Your task to perform on an android device: Open location settings Image 0: 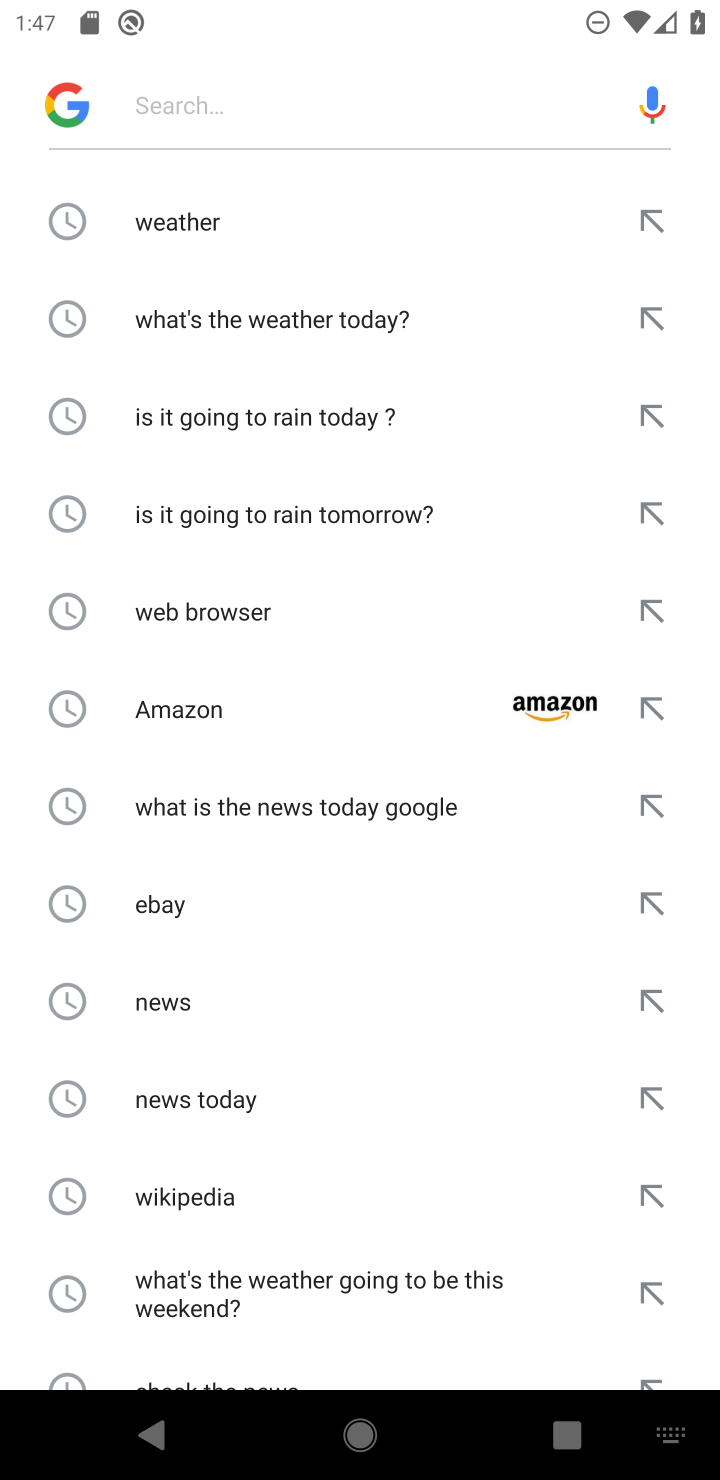
Step 0: press home button
Your task to perform on an android device: Open location settings Image 1: 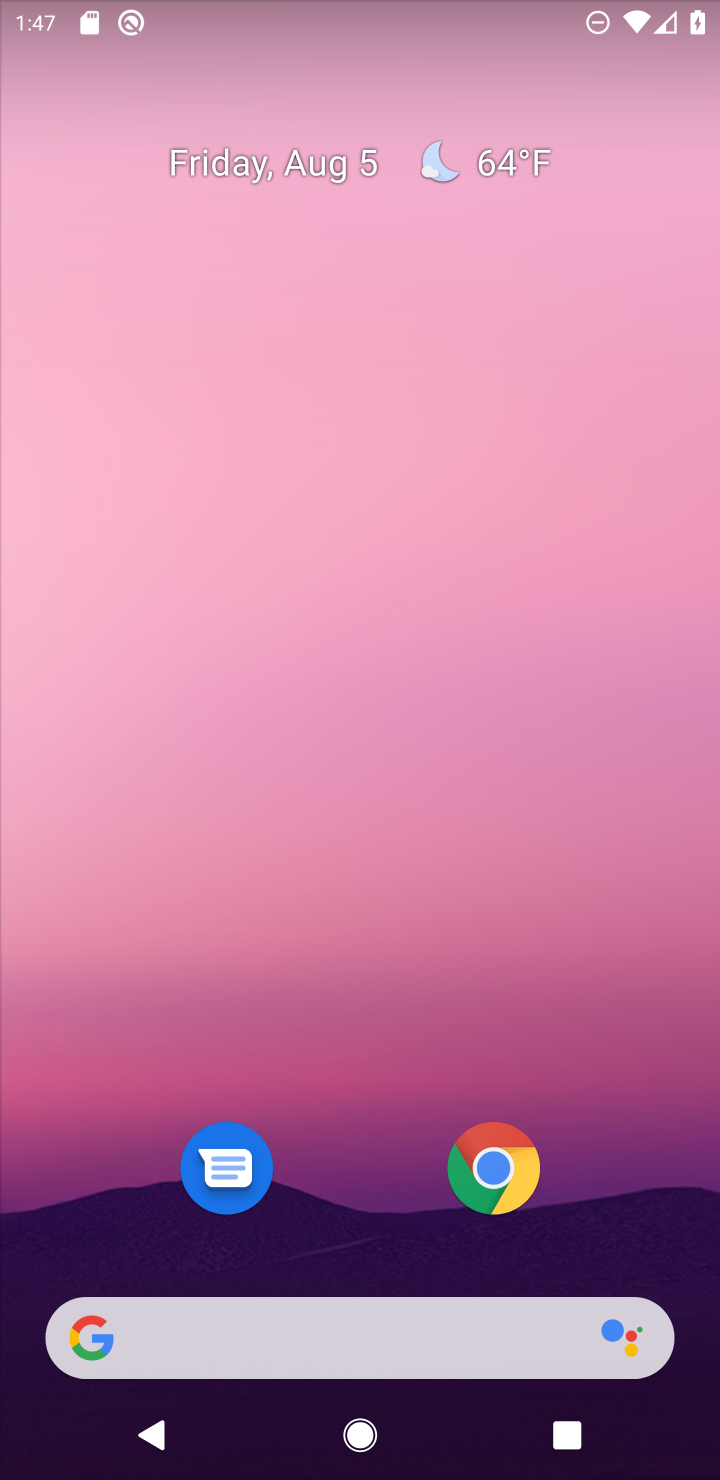
Step 1: drag from (669, 1226) to (25, 964)
Your task to perform on an android device: Open location settings Image 2: 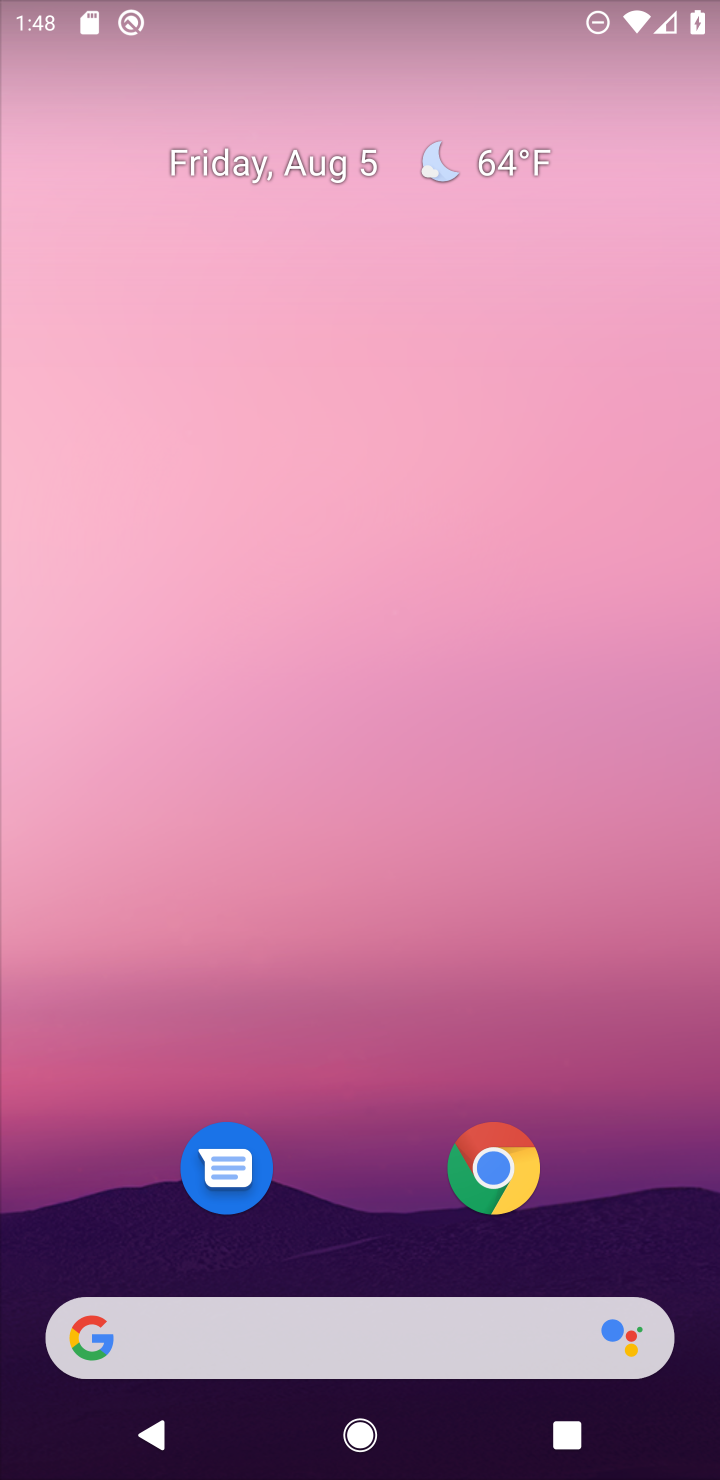
Step 2: click (375, 1339)
Your task to perform on an android device: Open location settings Image 3: 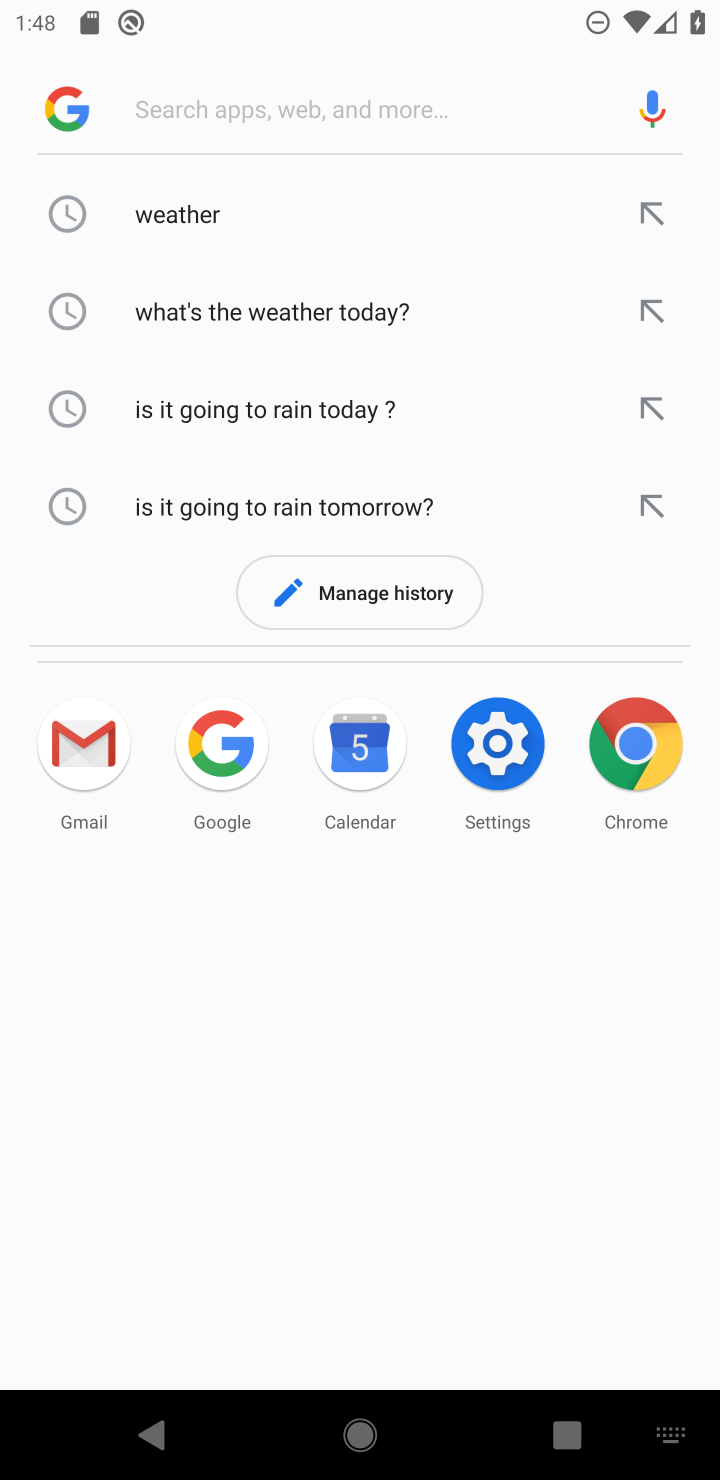
Step 3: click (530, 756)
Your task to perform on an android device: Open location settings Image 4: 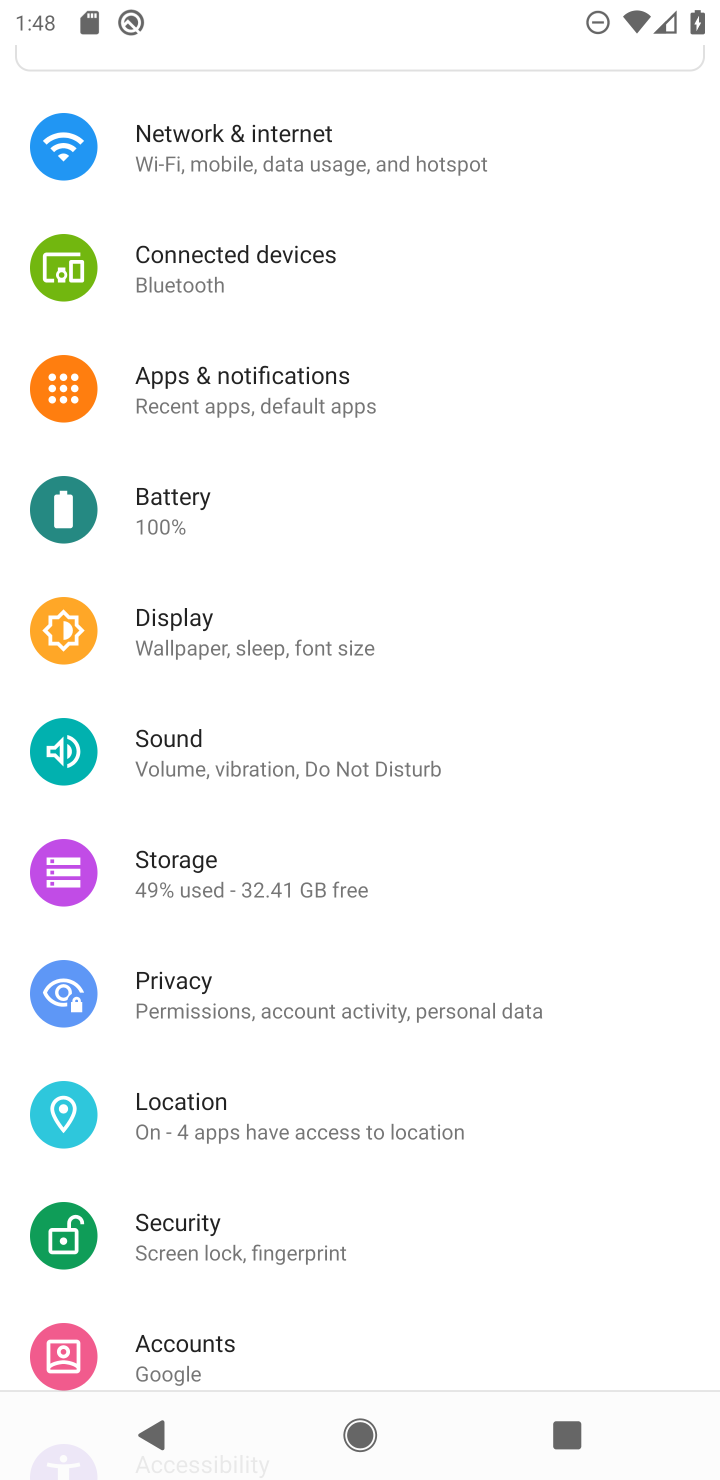
Step 4: click (224, 1125)
Your task to perform on an android device: Open location settings Image 5: 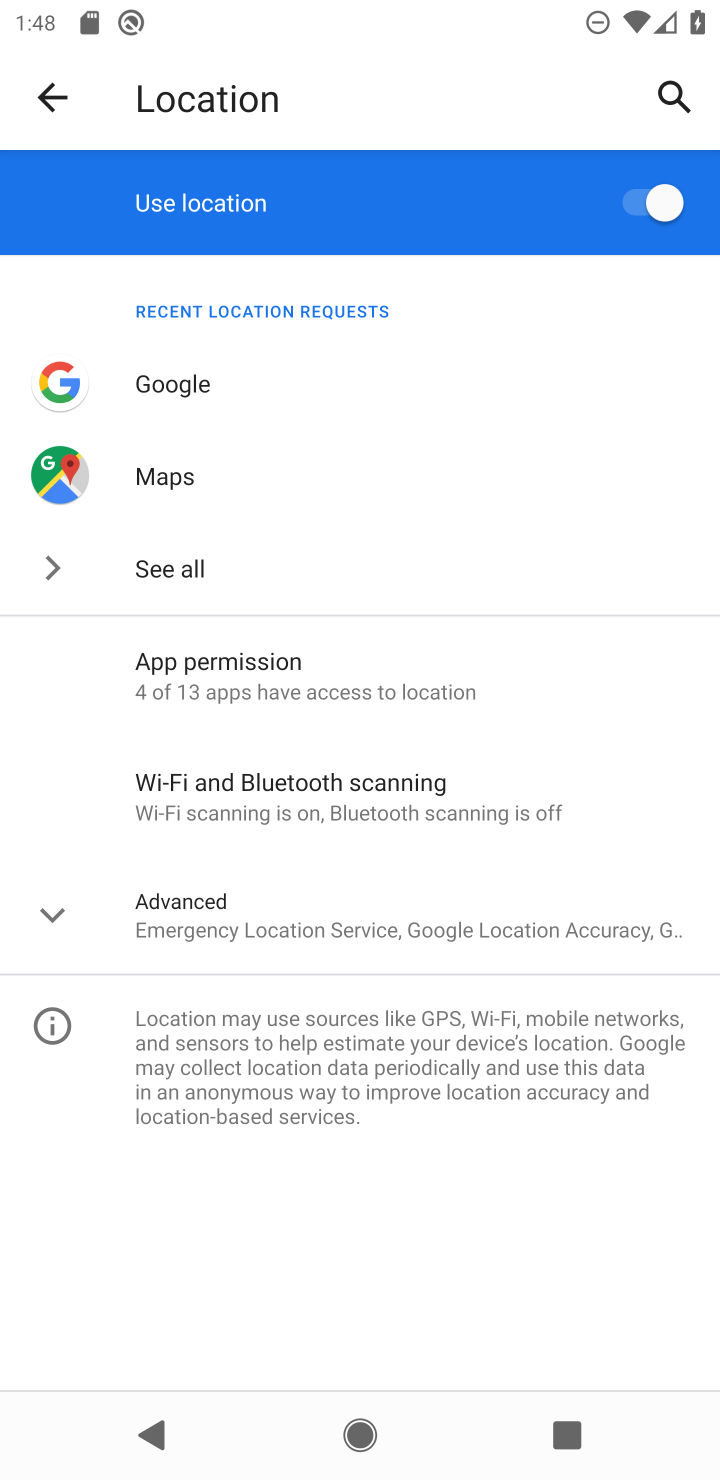
Step 5: click (141, 905)
Your task to perform on an android device: Open location settings Image 6: 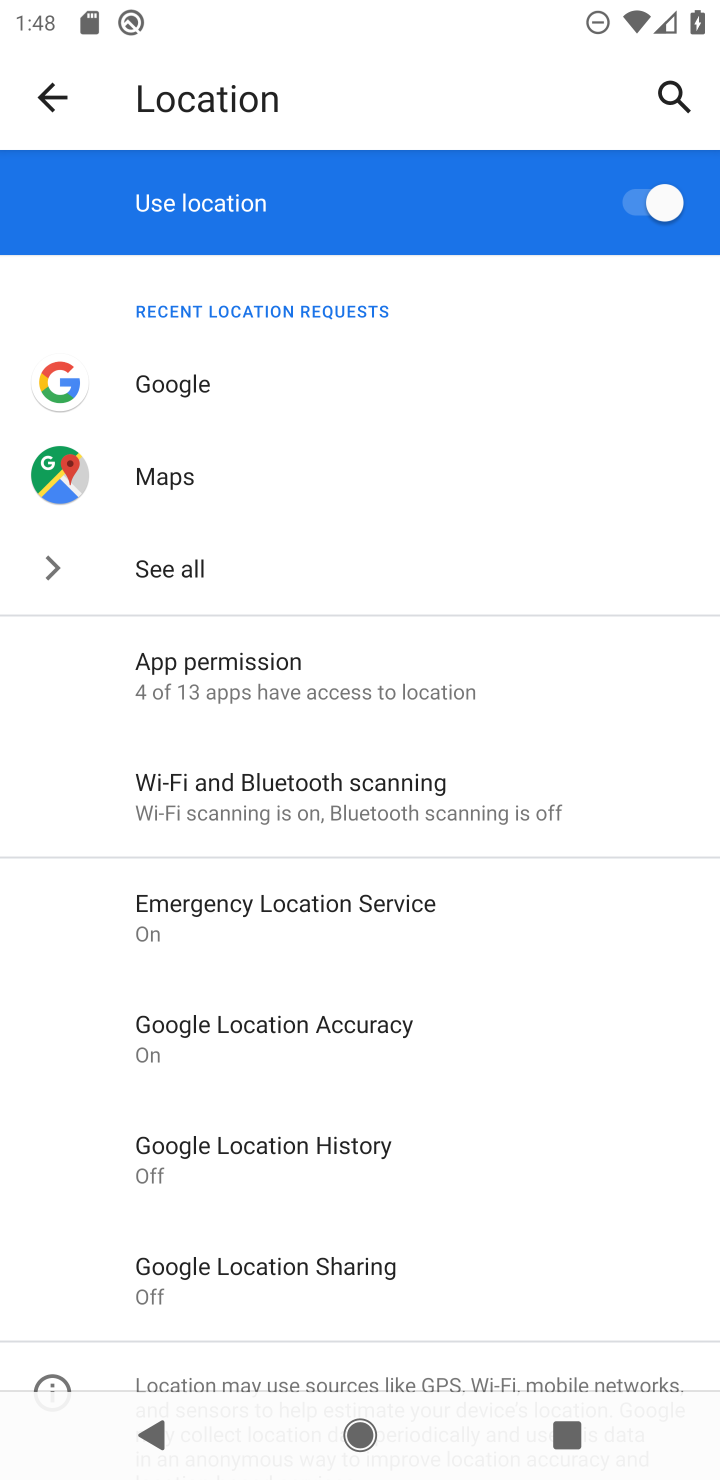
Step 6: task complete